Your task to perform on an android device: Show me the alarms in the clock app Image 0: 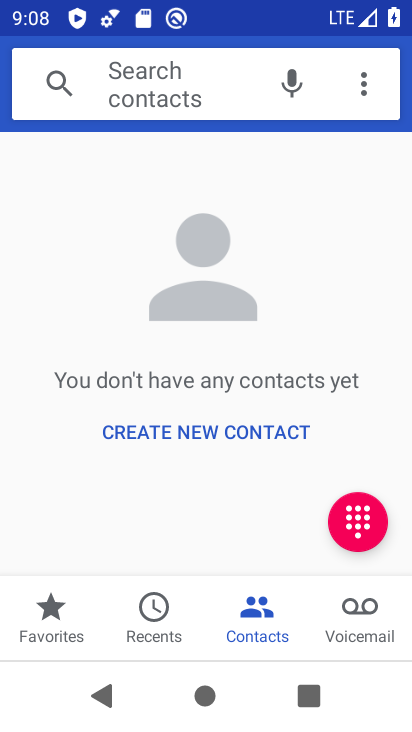
Step 0: press home button
Your task to perform on an android device: Show me the alarms in the clock app Image 1: 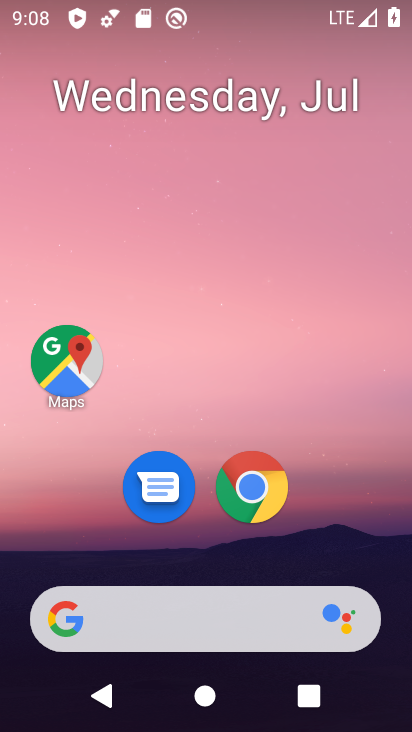
Step 1: drag from (205, 567) to (323, 29)
Your task to perform on an android device: Show me the alarms in the clock app Image 2: 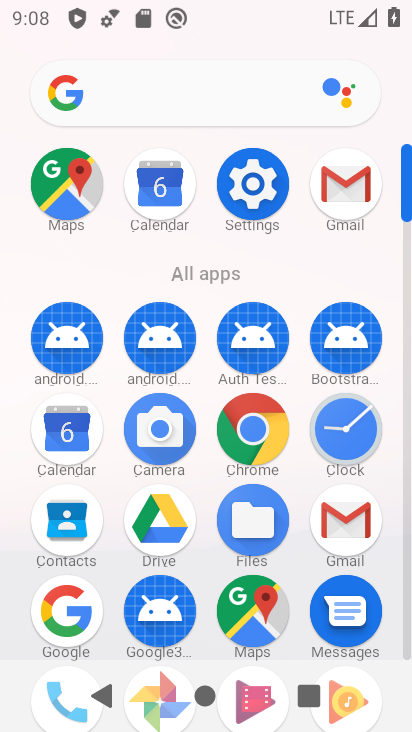
Step 2: click (367, 433)
Your task to perform on an android device: Show me the alarms in the clock app Image 3: 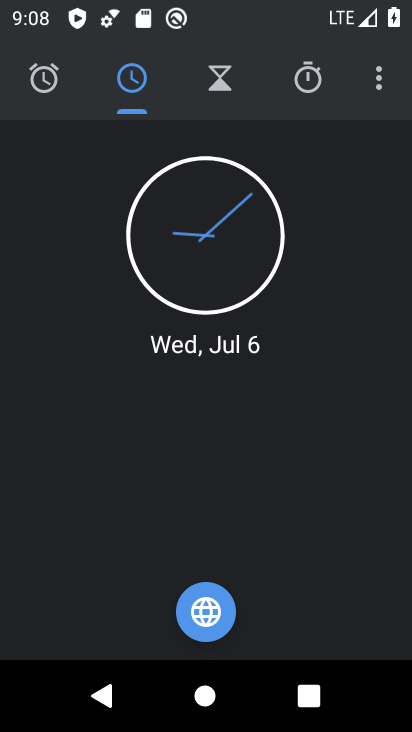
Step 3: click (372, 87)
Your task to perform on an android device: Show me the alarms in the clock app Image 4: 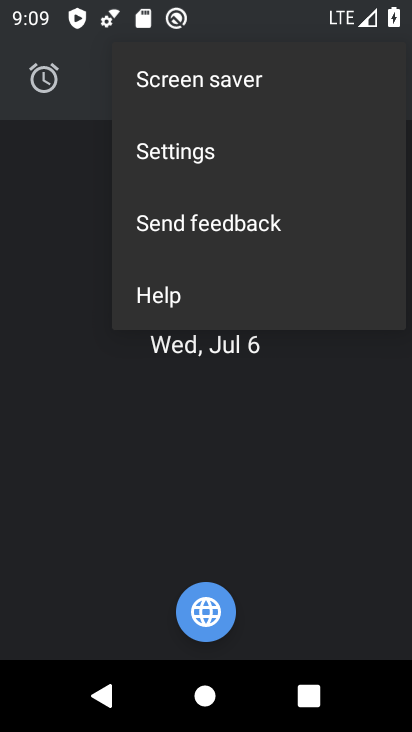
Step 4: click (244, 364)
Your task to perform on an android device: Show me the alarms in the clock app Image 5: 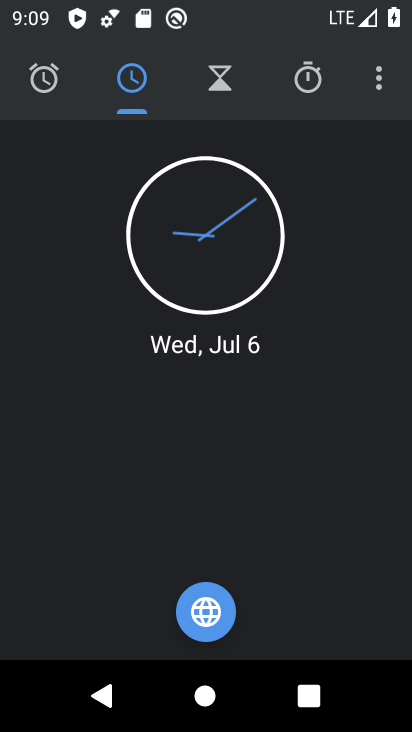
Step 5: click (43, 72)
Your task to perform on an android device: Show me the alarms in the clock app Image 6: 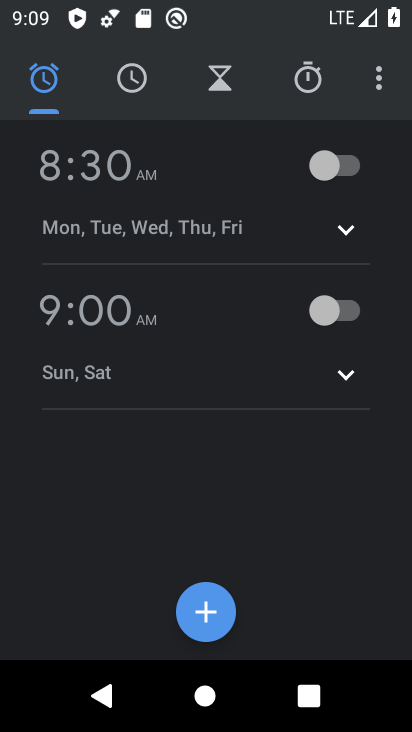
Step 6: task complete